Your task to perform on an android device: Open calendar and show me the third week of next month Image 0: 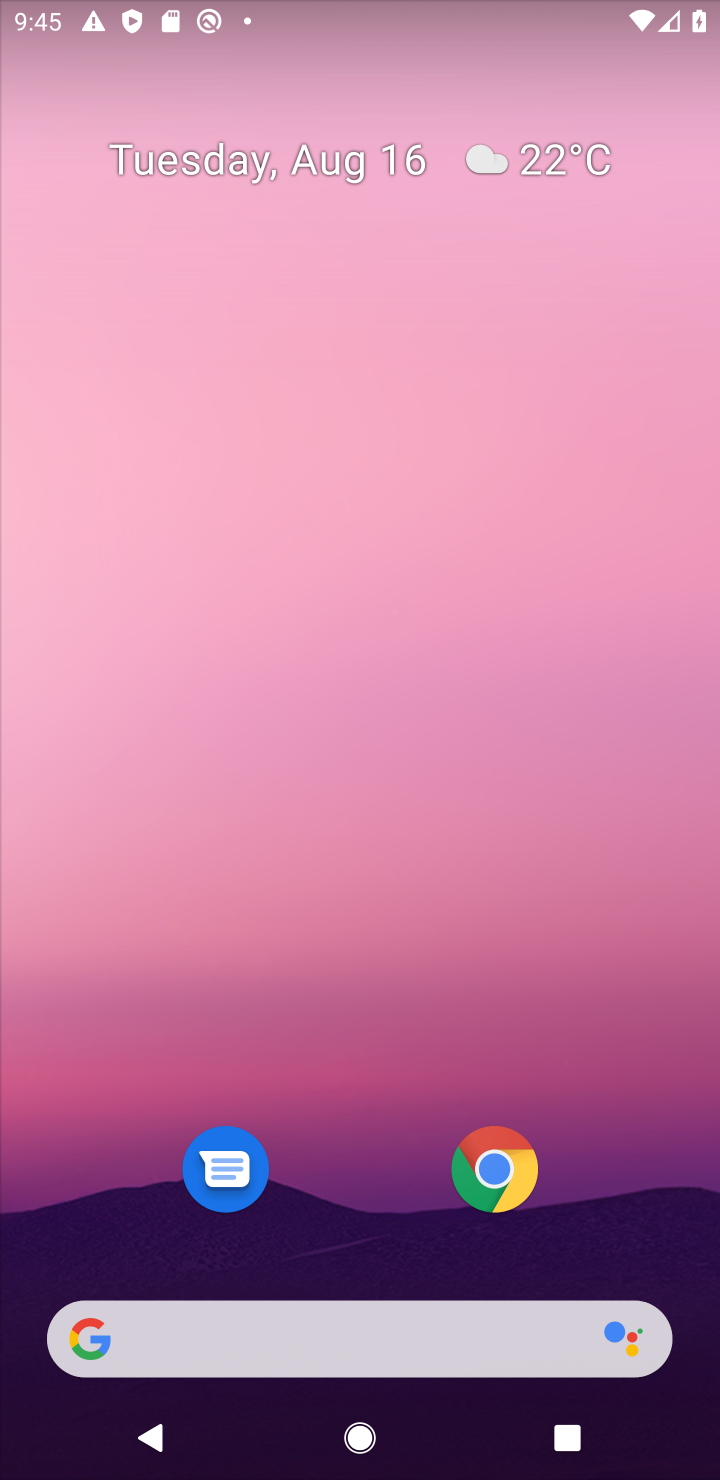
Step 0: drag from (355, 900) to (407, 252)
Your task to perform on an android device: Open calendar and show me the third week of next month Image 1: 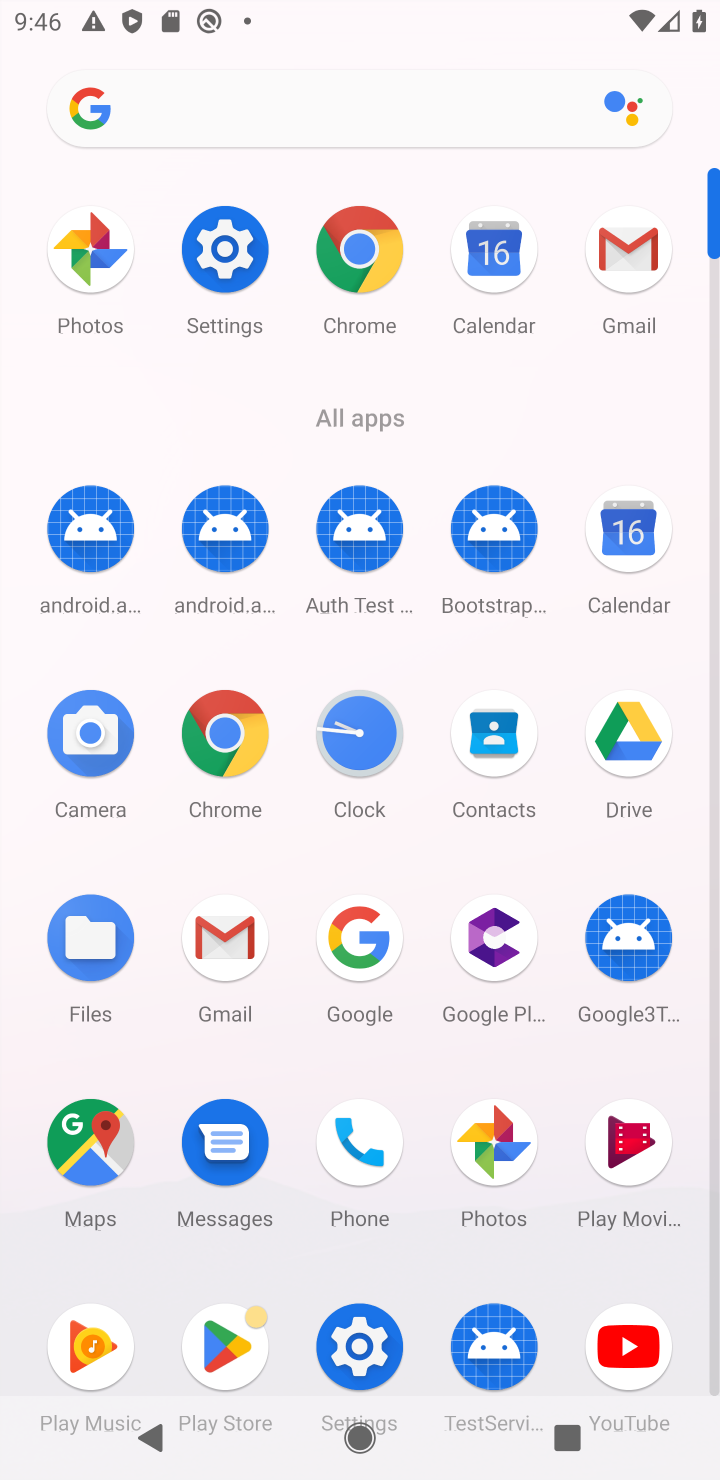
Step 1: click (639, 553)
Your task to perform on an android device: Open calendar and show me the third week of next month Image 2: 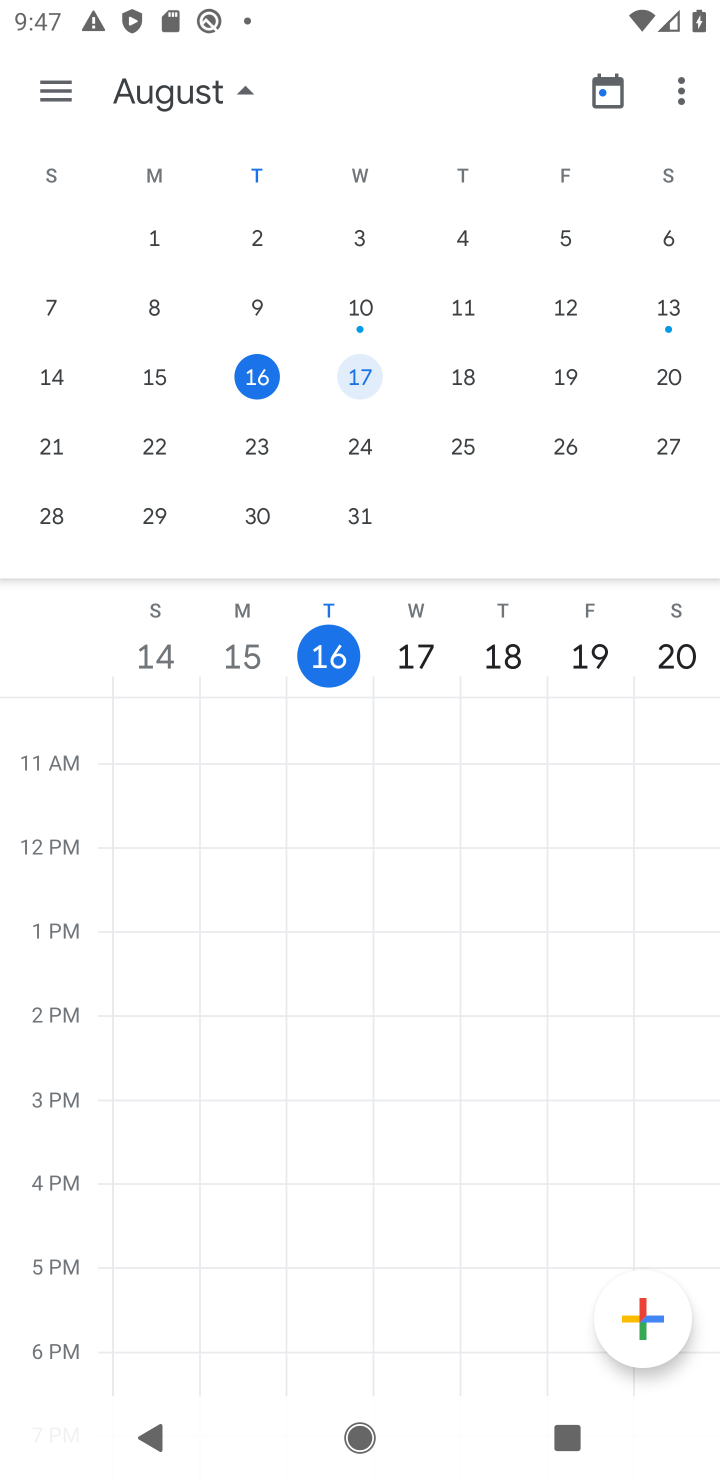
Step 2: drag from (463, 353) to (2, 397)
Your task to perform on an android device: Open calendar and show me the third week of next month Image 3: 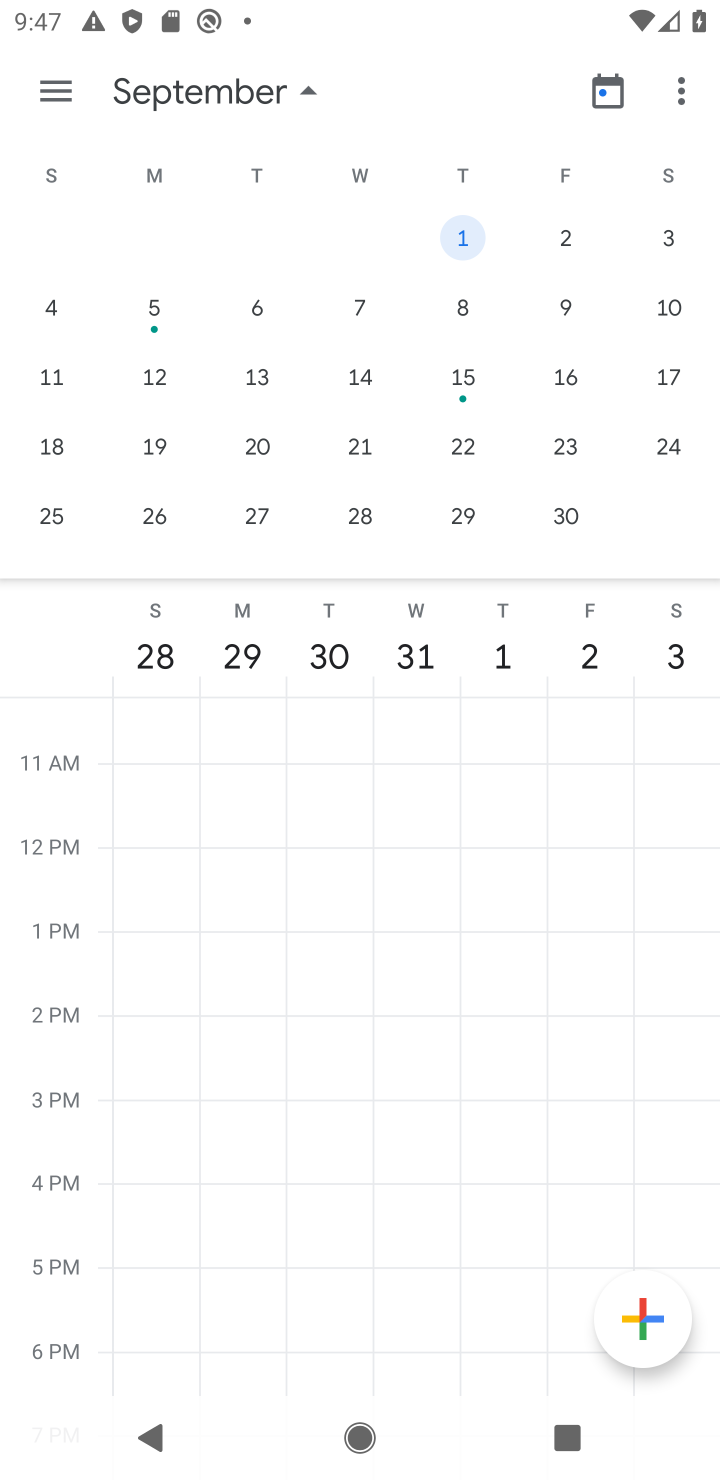
Step 3: click (50, 381)
Your task to perform on an android device: Open calendar and show me the third week of next month Image 4: 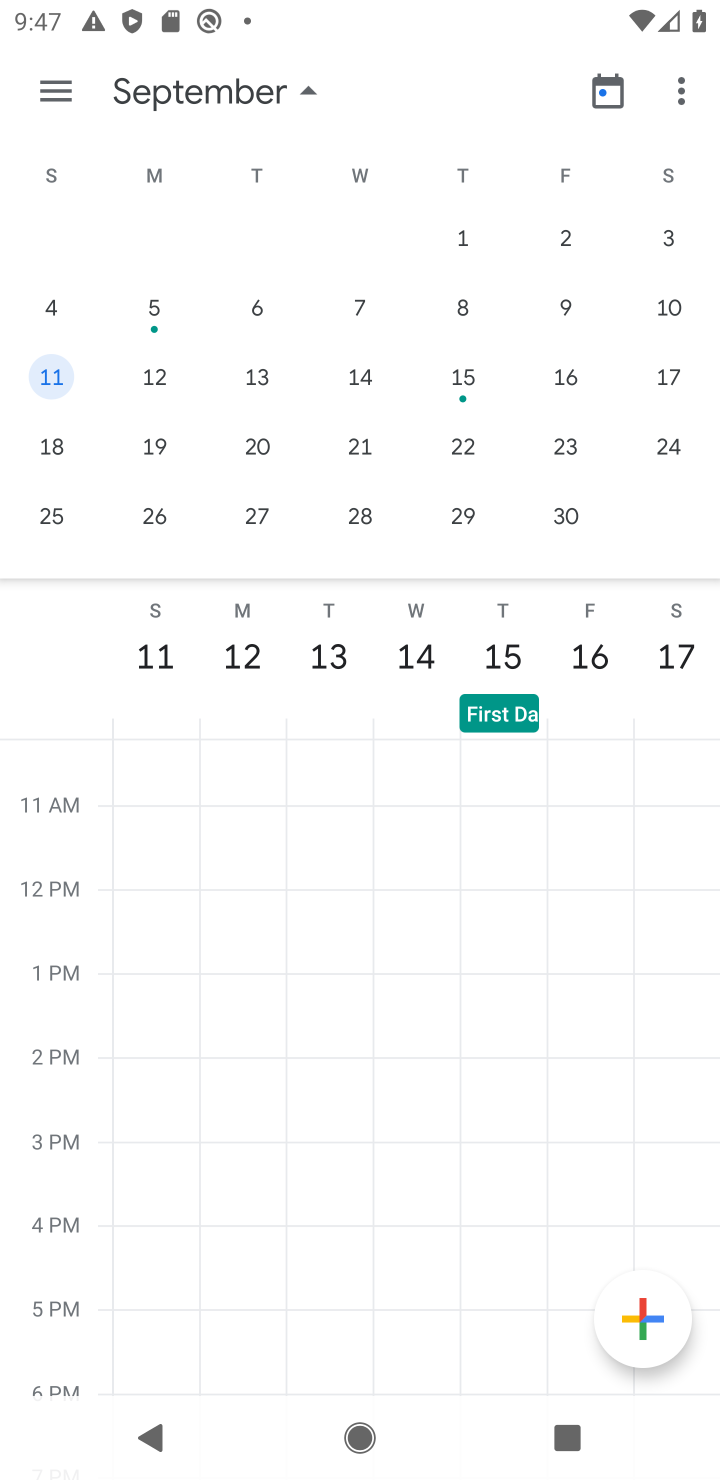
Step 4: task complete